Your task to perform on an android device: check battery use Image 0: 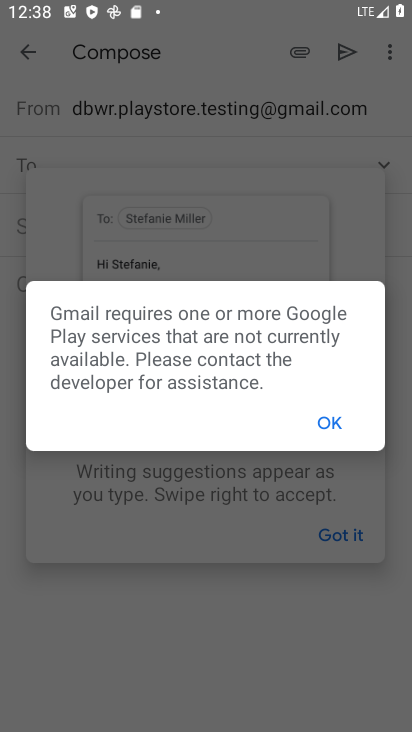
Step 0: press home button
Your task to perform on an android device: check battery use Image 1: 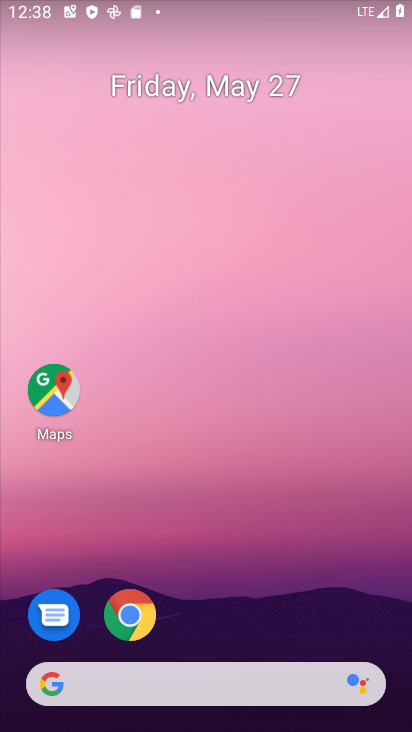
Step 1: drag from (211, 658) to (290, 74)
Your task to perform on an android device: check battery use Image 2: 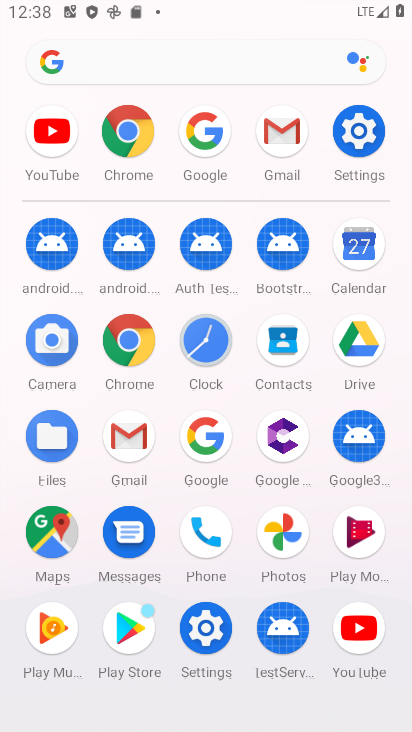
Step 2: click (372, 131)
Your task to perform on an android device: check battery use Image 3: 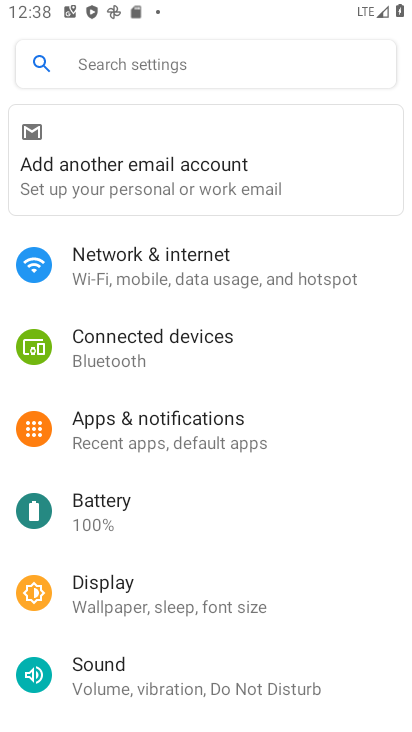
Step 3: click (127, 512)
Your task to perform on an android device: check battery use Image 4: 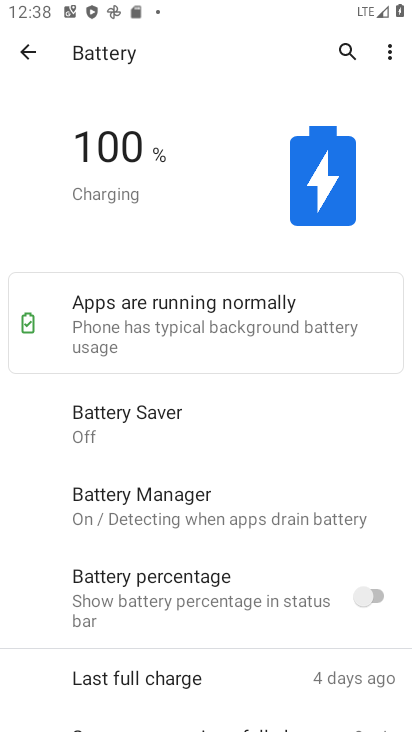
Step 4: task complete